Your task to perform on an android device: Is it going to rain tomorrow? Image 0: 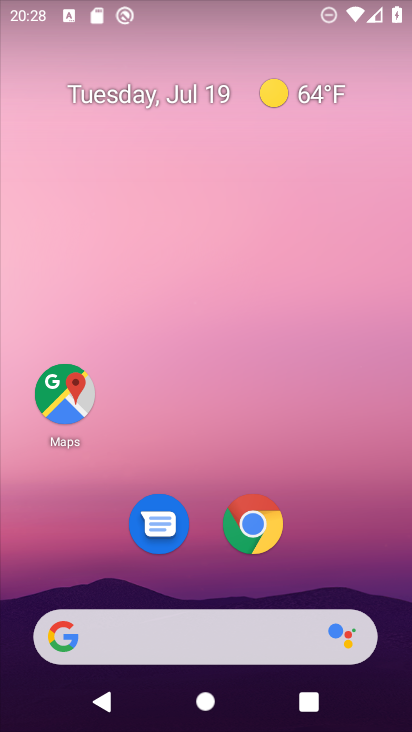
Step 0: drag from (338, 526) to (327, 66)
Your task to perform on an android device: Is it going to rain tomorrow? Image 1: 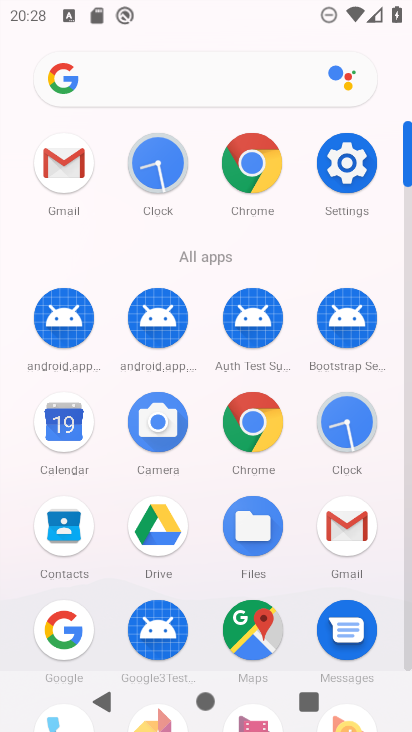
Step 1: press back button
Your task to perform on an android device: Is it going to rain tomorrow? Image 2: 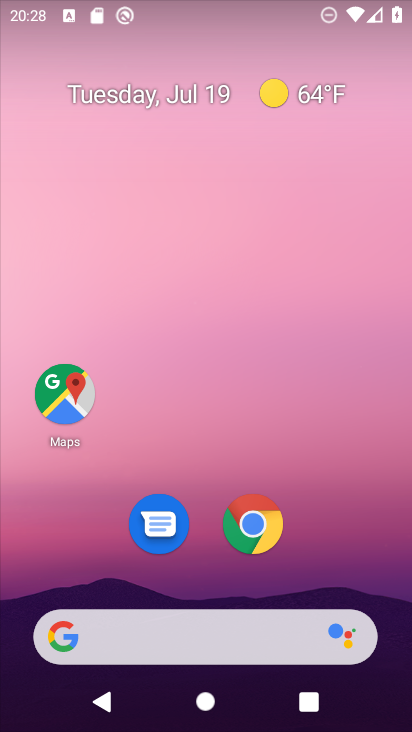
Step 2: click (311, 85)
Your task to perform on an android device: Is it going to rain tomorrow? Image 3: 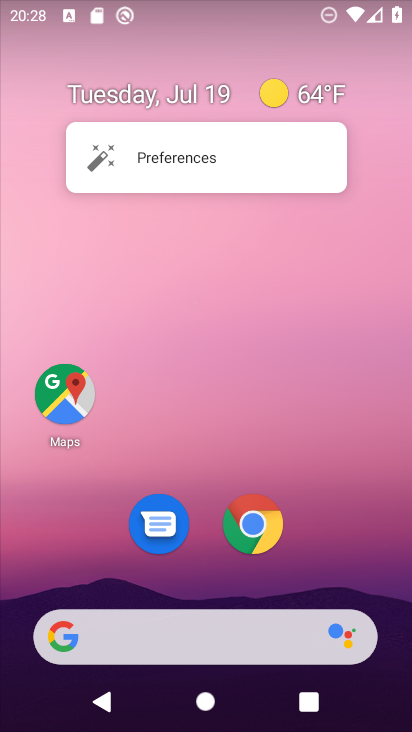
Step 3: click (316, 89)
Your task to perform on an android device: Is it going to rain tomorrow? Image 4: 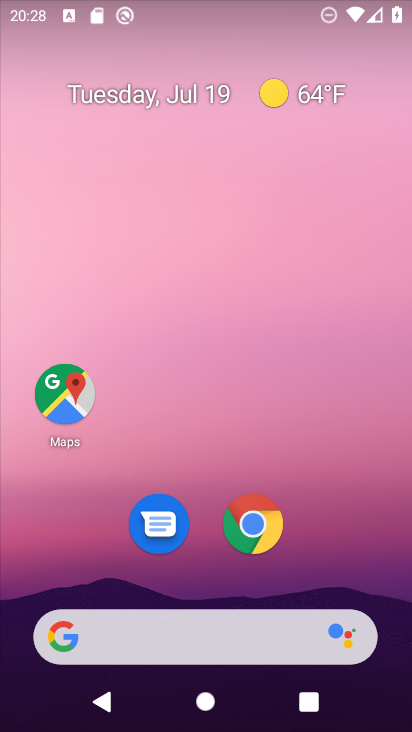
Step 4: click (309, 99)
Your task to perform on an android device: Is it going to rain tomorrow? Image 5: 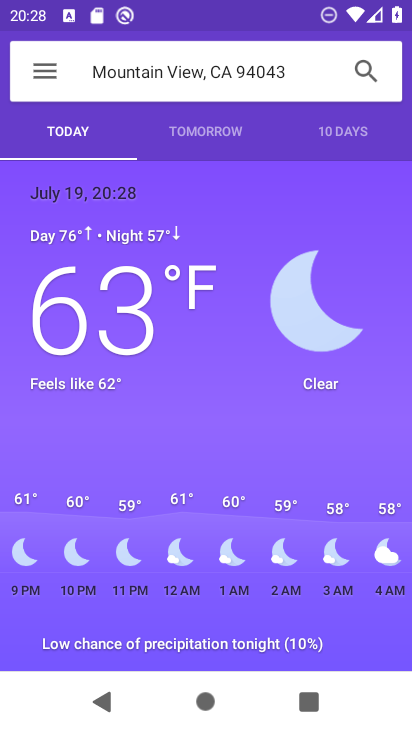
Step 5: click (210, 129)
Your task to perform on an android device: Is it going to rain tomorrow? Image 6: 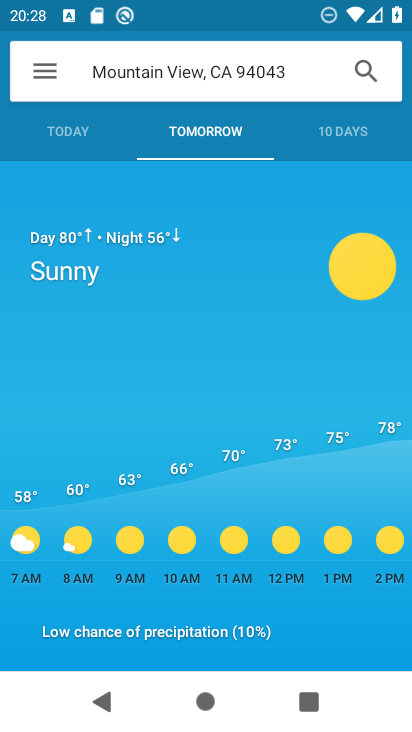
Step 6: task complete